Your task to perform on an android device: See recent photos Image 0: 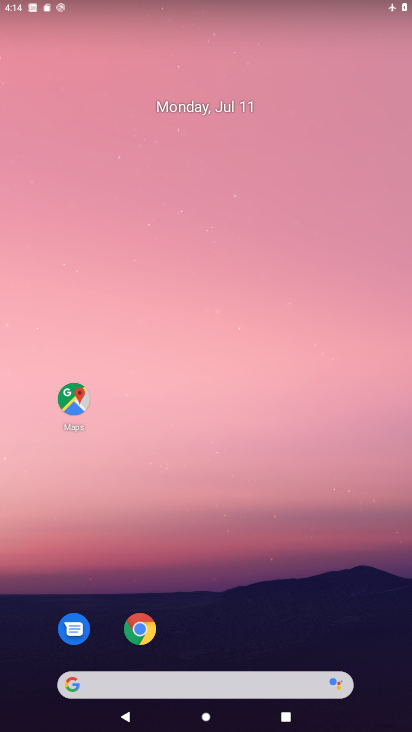
Step 0: drag from (390, 724) to (306, 111)
Your task to perform on an android device: See recent photos Image 1: 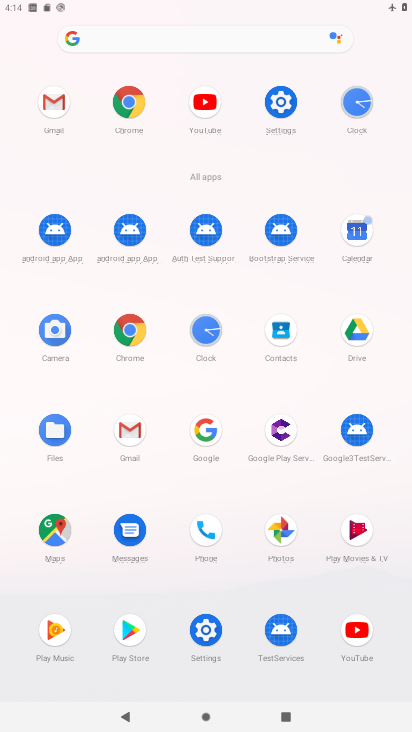
Step 1: click (293, 520)
Your task to perform on an android device: See recent photos Image 2: 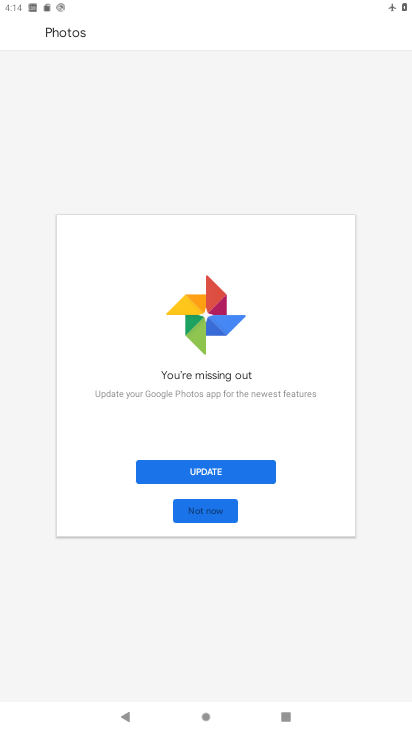
Step 2: task complete